Your task to perform on an android device: find snoozed emails in the gmail app Image 0: 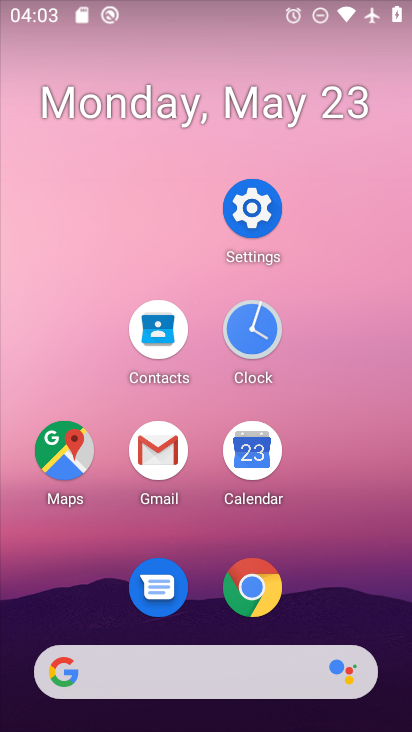
Step 0: click (157, 461)
Your task to perform on an android device: find snoozed emails in the gmail app Image 1: 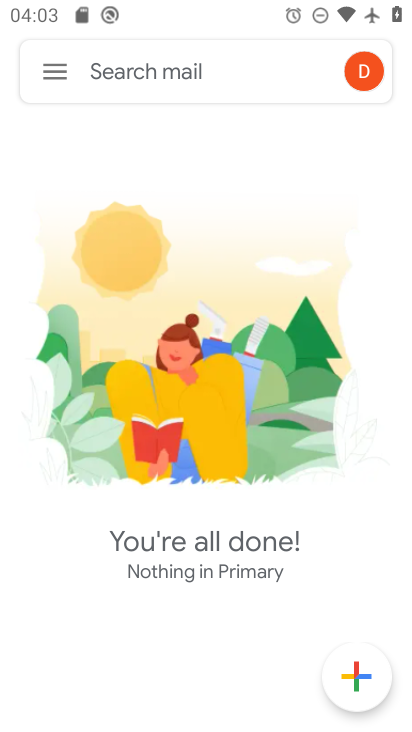
Step 1: click (78, 67)
Your task to perform on an android device: find snoozed emails in the gmail app Image 2: 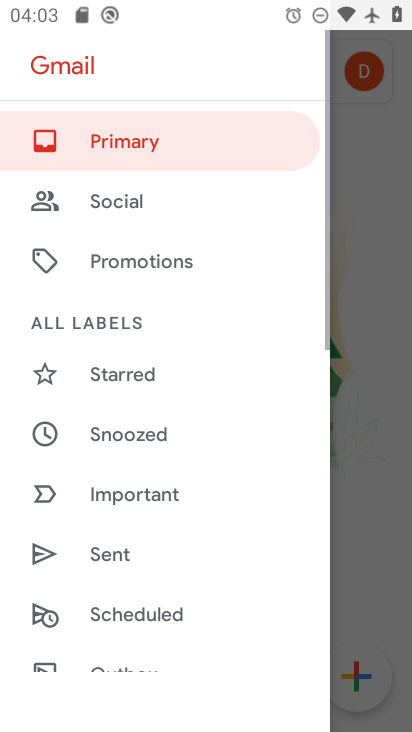
Step 2: click (117, 426)
Your task to perform on an android device: find snoozed emails in the gmail app Image 3: 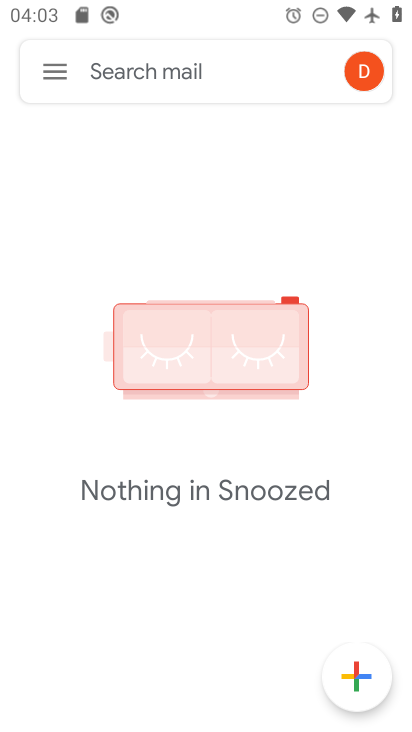
Step 3: task complete